Your task to perform on an android device: Clear the shopping cart on newegg.com. Search for "razer huntsman" on newegg.com, select the first entry, and add it to the cart. Image 0: 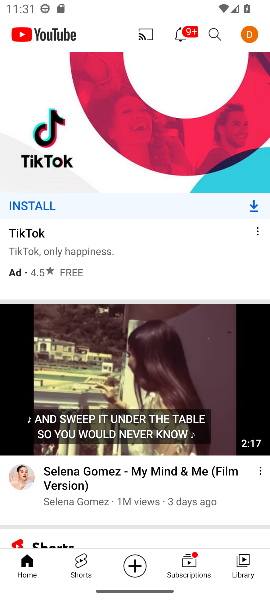
Step 0: press home button
Your task to perform on an android device: Clear the shopping cart on newegg.com. Search for "razer huntsman" on newegg.com, select the first entry, and add it to the cart. Image 1: 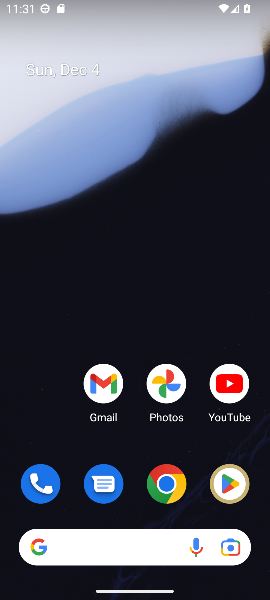
Step 1: click (167, 491)
Your task to perform on an android device: Clear the shopping cart on newegg.com. Search for "razer huntsman" on newegg.com, select the first entry, and add it to the cart. Image 2: 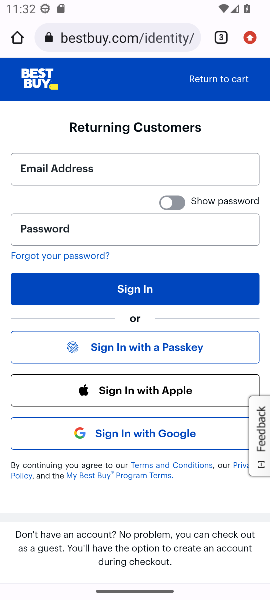
Step 2: click (125, 45)
Your task to perform on an android device: Clear the shopping cart on newegg.com. Search for "razer huntsman" on newegg.com, select the first entry, and add it to the cart. Image 3: 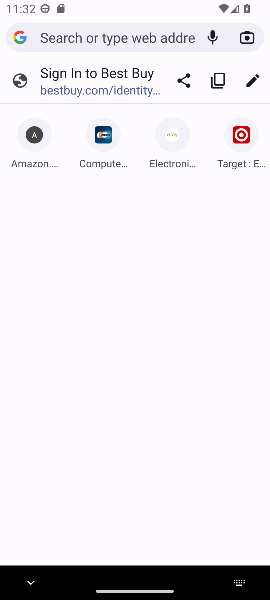
Step 3: click (102, 155)
Your task to perform on an android device: Clear the shopping cart on newegg.com. Search for "razer huntsman" on newegg.com, select the first entry, and add it to the cart. Image 4: 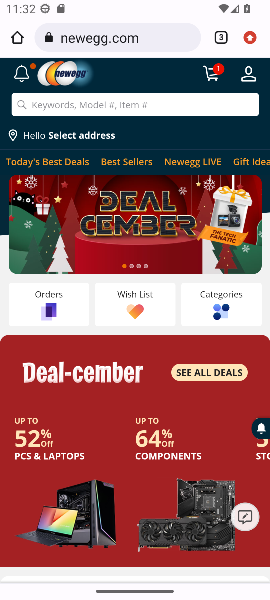
Step 4: click (213, 76)
Your task to perform on an android device: Clear the shopping cart on newegg.com. Search for "razer huntsman" on newegg.com, select the first entry, and add it to the cart. Image 5: 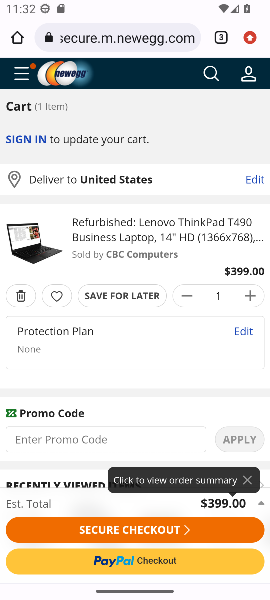
Step 5: click (19, 293)
Your task to perform on an android device: Clear the shopping cart on newegg.com. Search for "razer huntsman" on newegg.com, select the first entry, and add it to the cart. Image 6: 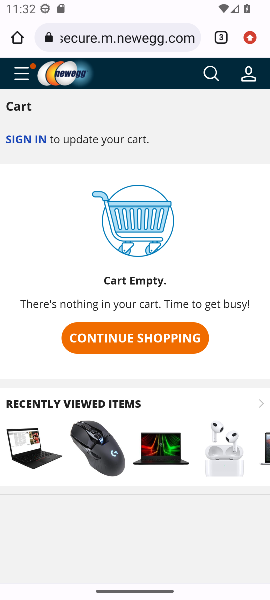
Step 6: click (212, 74)
Your task to perform on an android device: Clear the shopping cart on newegg.com. Search for "razer huntsman" on newegg.com, select the first entry, and add it to the cart. Image 7: 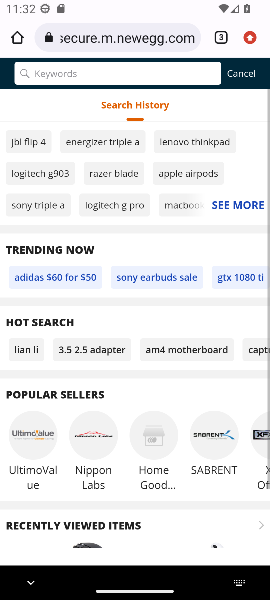
Step 7: type "razer huntsman"
Your task to perform on an android device: Clear the shopping cart on newegg.com. Search for "razer huntsman" on newegg.com, select the first entry, and add it to the cart. Image 8: 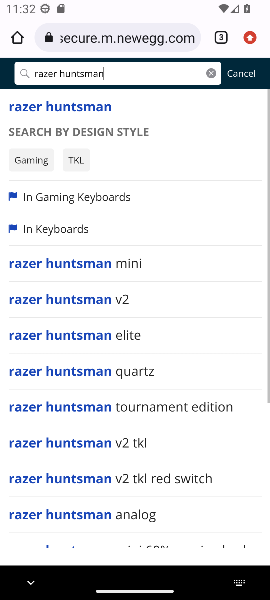
Step 8: click (70, 112)
Your task to perform on an android device: Clear the shopping cart on newegg.com. Search for "razer huntsman" on newegg.com, select the first entry, and add it to the cart. Image 9: 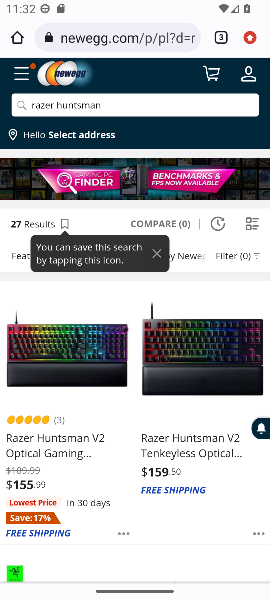
Step 9: click (42, 445)
Your task to perform on an android device: Clear the shopping cart on newegg.com. Search for "razer huntsman" on newegg.com, select the first entry, and add it to the cart. Image 10: 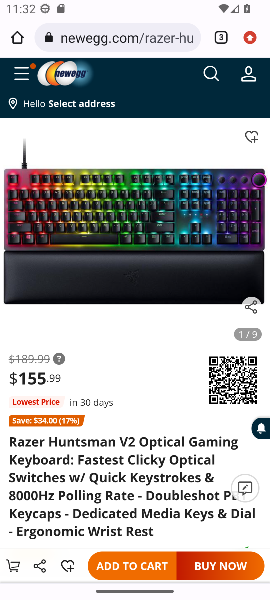
Step 10: click (123, 566)
Your task to perform on an android device: Clear the shopping cart on newegg.com. Search for "razer huntsman" on newegg.com, select the first entry, and add it to the cart. Image 11: 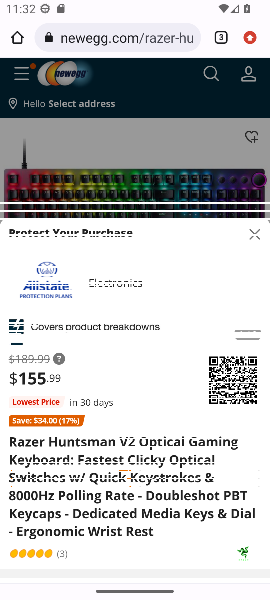
Step 11: task complete